Your task to perform on an android device: Open Google Maps Image 0: 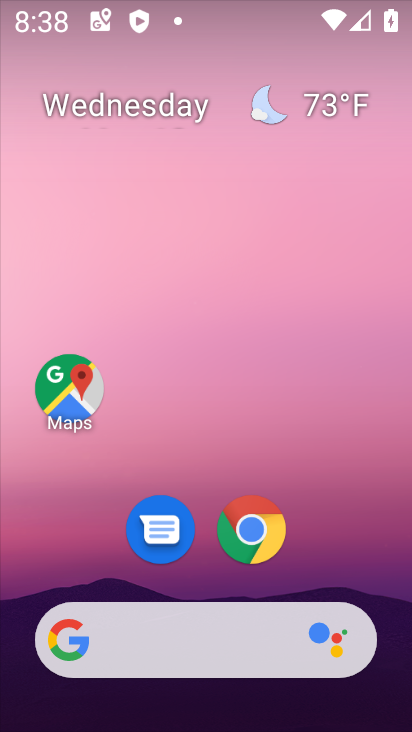
Step 0: drag from (355, 553) to (324, 223)
Your task to perform on an android device: Open Google Maps Image 1: 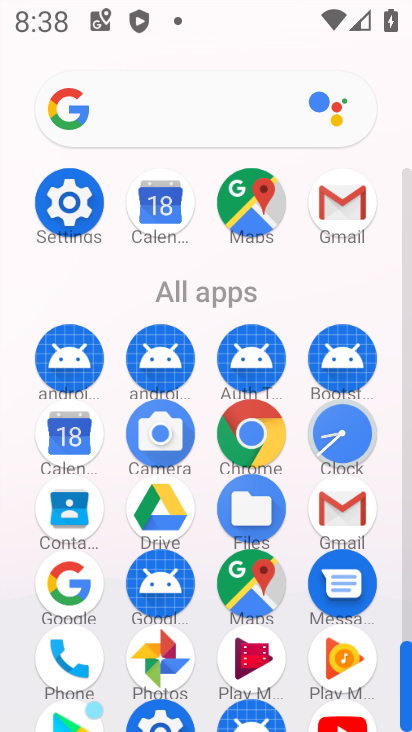
Step 1: click (267, 226)
Your task to perform on an android device: Open Google Maps Image 2: 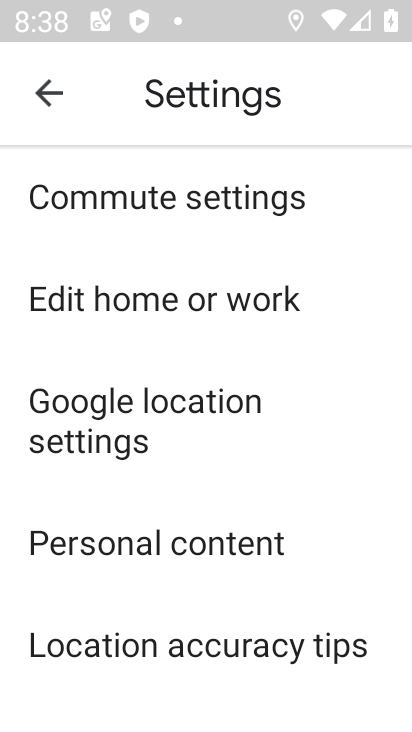
Step 2: click (60, 108)
Your task to perform on an android device: Open Google Maps Image 3: 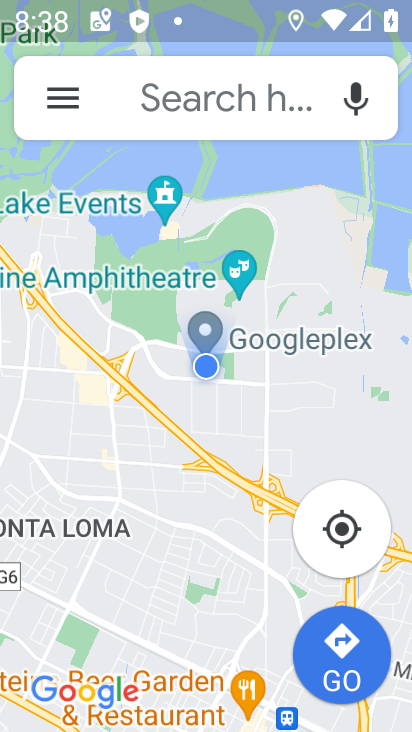
Step 3: task complete